Your task to perform on an android device: delete the emails in spam in the gmail app Image 0: 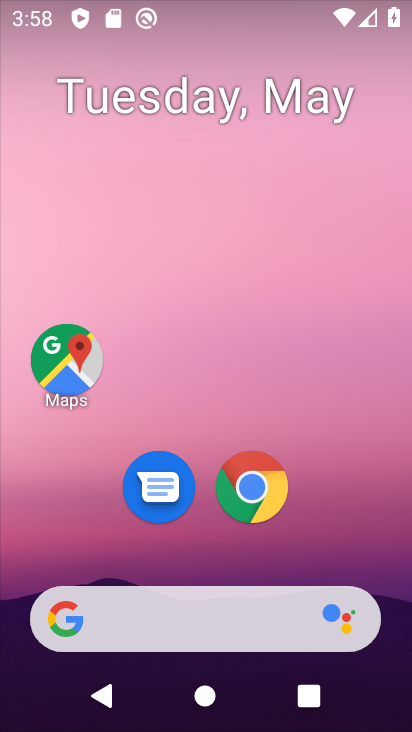
Step 0: drag from (366, 496) to (310, 53)
Your task to perform on an android device: delete the emails in spam in the gmail app Image 1: 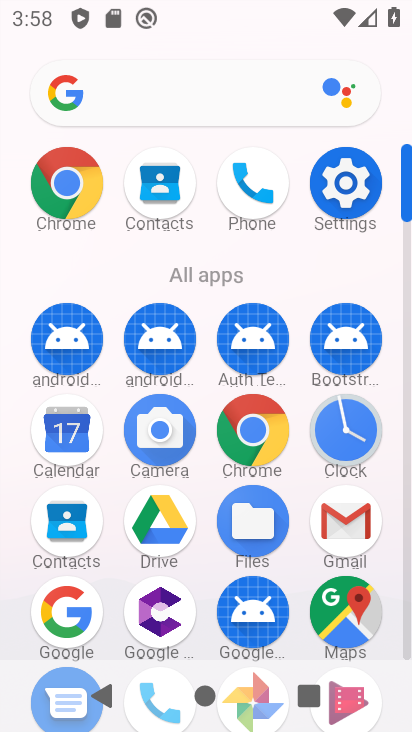
Step 1: click (349, 531)
Your task to perform on an android device: delete the emails in spam in the gmail app Image 2: 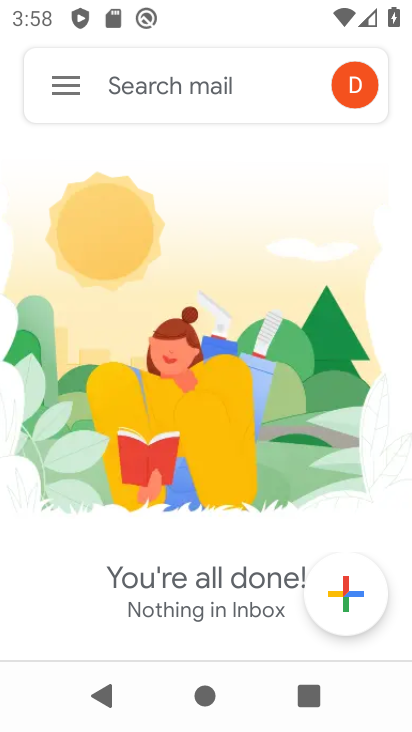
Step 2: click (57, 69)
Your task to perform on an android device: delete the emails in spam in the gmail app Image 3: 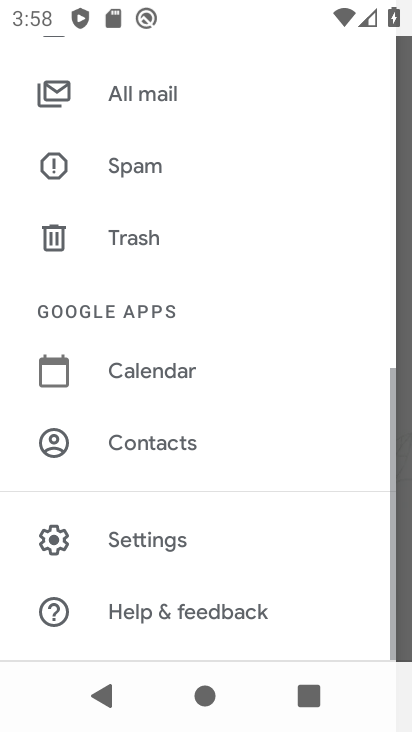
Step 3: drag from (237, 555) to (254, 497)
Your task to perform on an android device: delete the emails in spam in the gmail app Image 4: 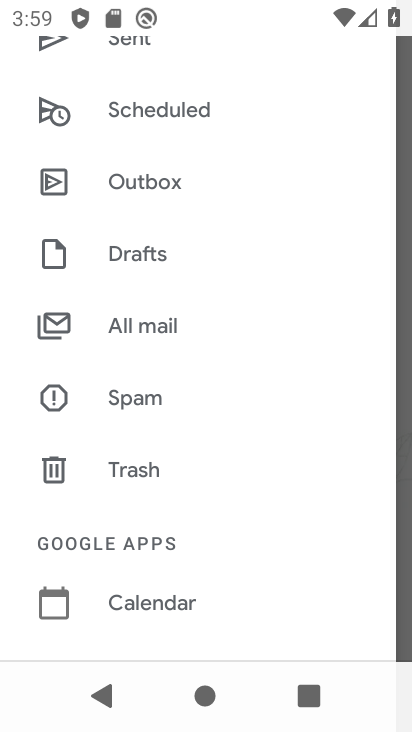
Step 4: click (139, 400)
Your task to perform on an android device: delete the emails in spam in the gmail app Image 5: 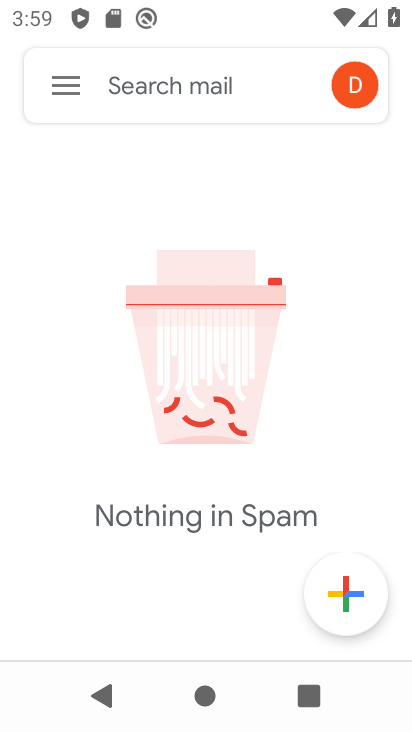
Step 5: task complete